Your task to perform on an android device: turn on javascript in the chrome app Image 0: 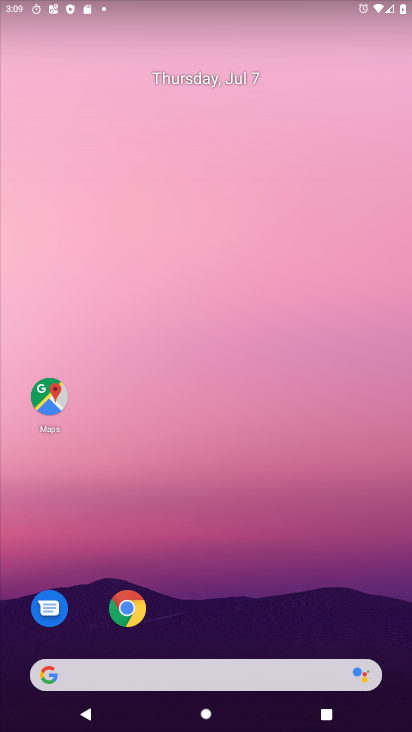
Step 0: click (129, 614)
Your task to perform on an android device: turn on javascript in the chrome app Image 1: 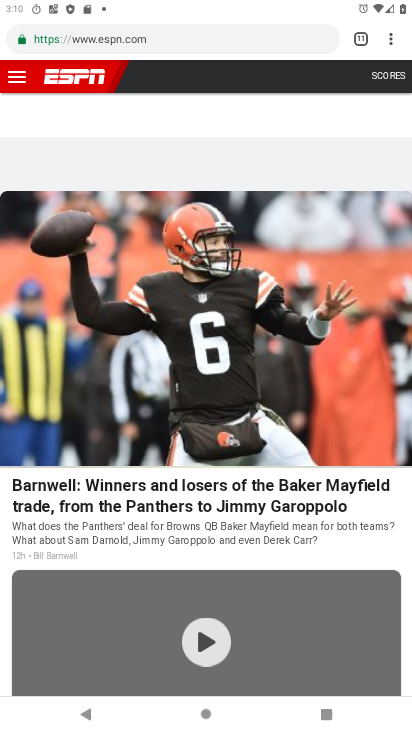
Step 1: click (391, 41)
Your task to perform on an android device: turn on javascript in the chrome app Image 2: 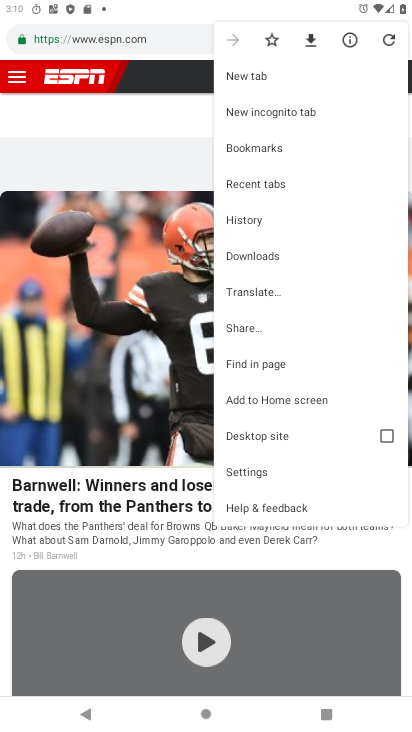
Step 2: click (255, 470)
Your task to perform on an android device: turn on javascript in the chrome app Image 3: 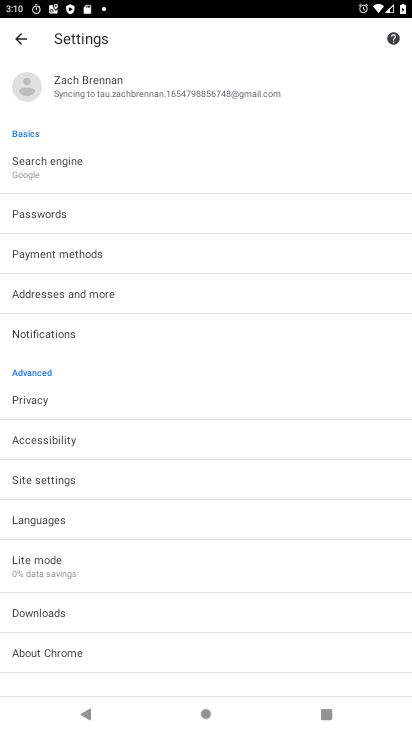
Step 3: click (67, 480)
Your task to perform on an android device: turn on javascript in the chrome app Image 4: 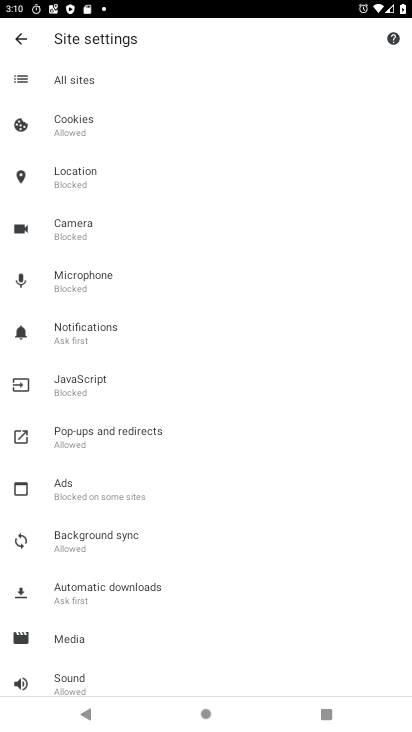
Step 4: click (73, 379)
Your task to perform on an android device: turn on javascript in the chrome app Image 5: 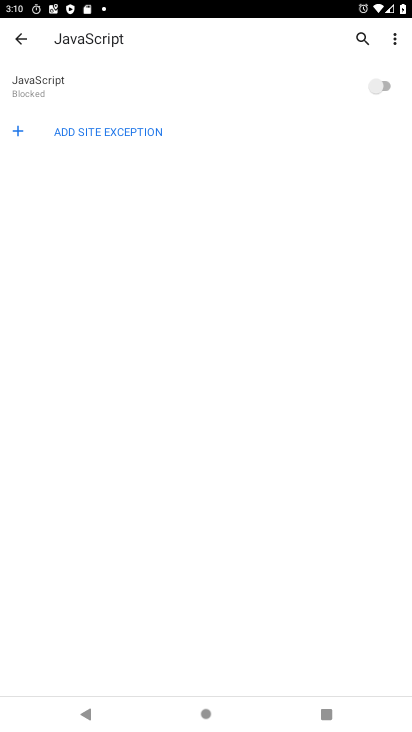
Step 5: click (385, 86)
Your task to perform on an android device: turn on javascript in the chrome app Image 6: 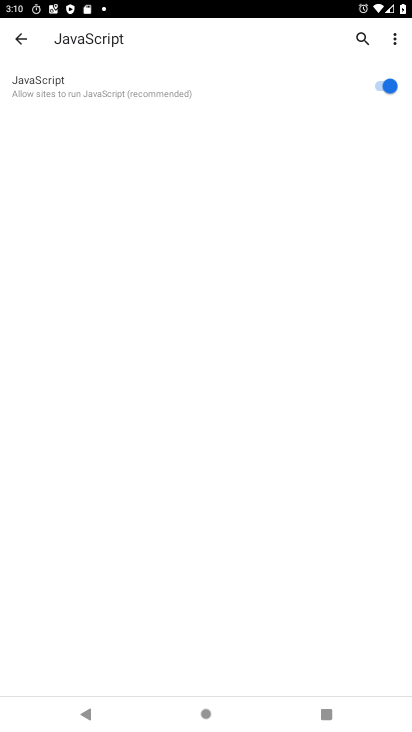
Step 6: task complete